Your task to perform on an android device: Open Maps and search for coffee Image 0: 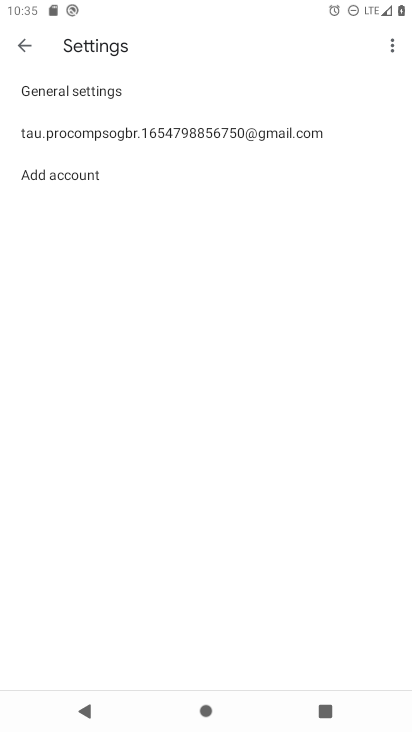
Step 0: press home button
Your task to perform on an android device: Open Maps and search for coffee Image 1: 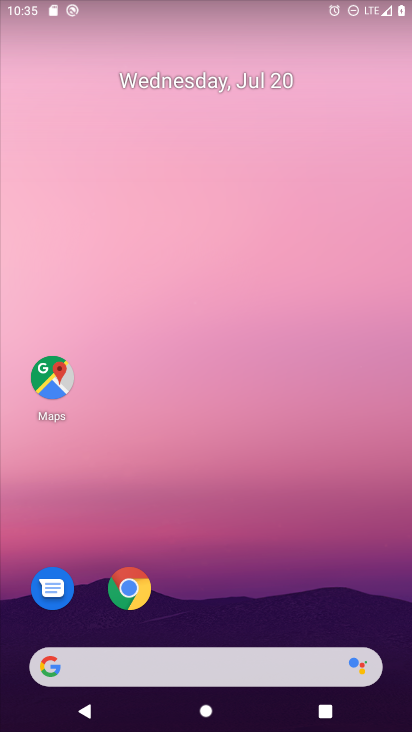
Step 1: click (38, 366)
Your task to perform on an android device: Open Maps and search for coffee Image 2: 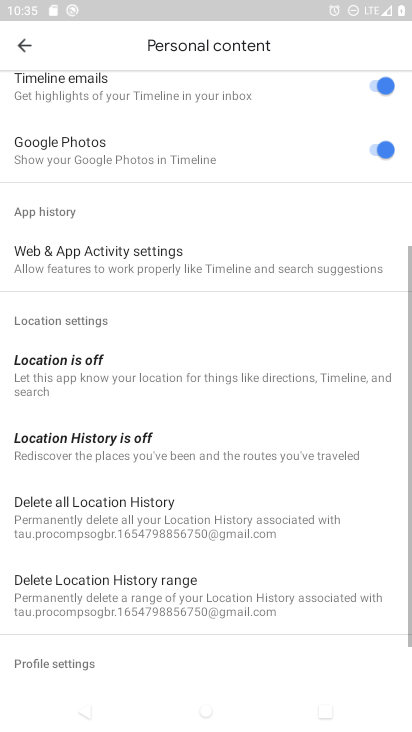
Step 2: click (23, 41)
Your task to perform on an android device: Open Maps and search for coffee Image 3: 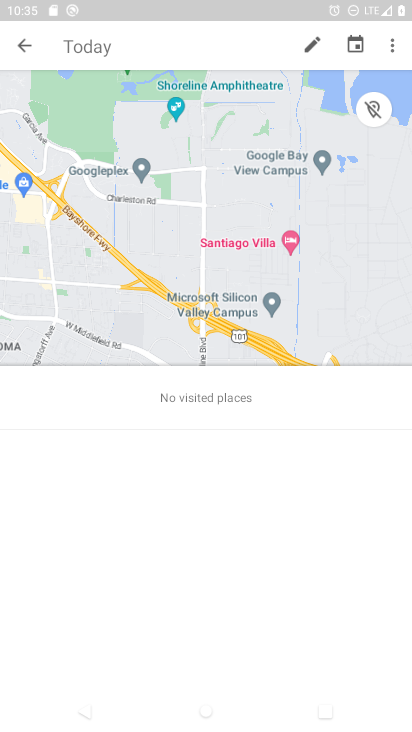
Step 3: click (23, 41)
Your task to perform on an android device: Open Maps and search for coffee Image 4: 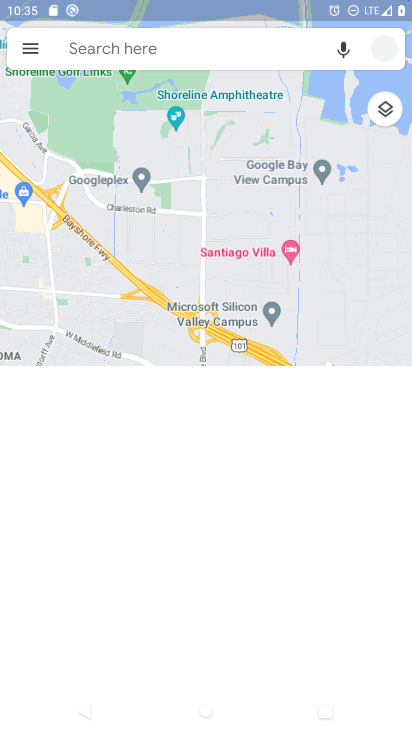
Step 4: click (90, 53)
Your task to perform on an android device: Open Maps and search for coffee Image 5: 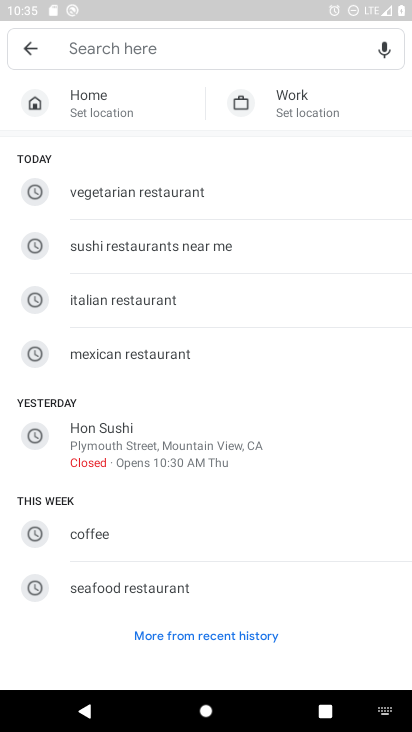
Step 5: type "coffee"
Your task to perform on an android device: Open Maps and search for coffee Image 6: 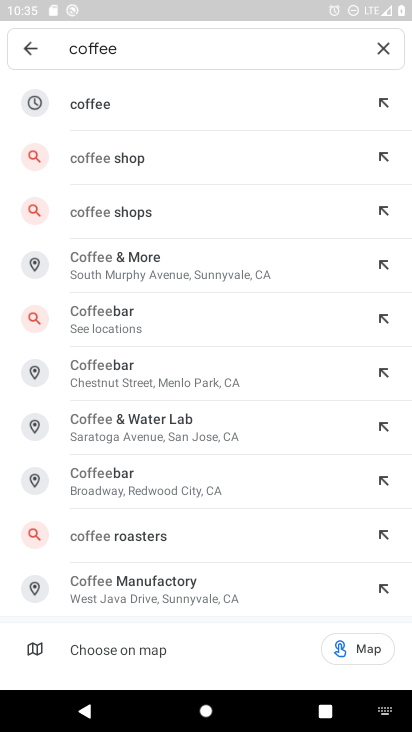
Step 6: click (192, 105)
Your task to perform on an android device: Open Maps and search for coffee Image 7: 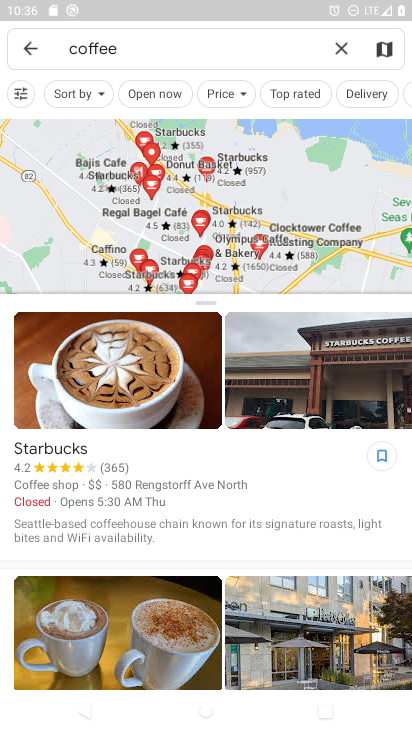
Step 7: task complete